Your task to perform on an android device: Play the last video I watched on Youtube Image 0: 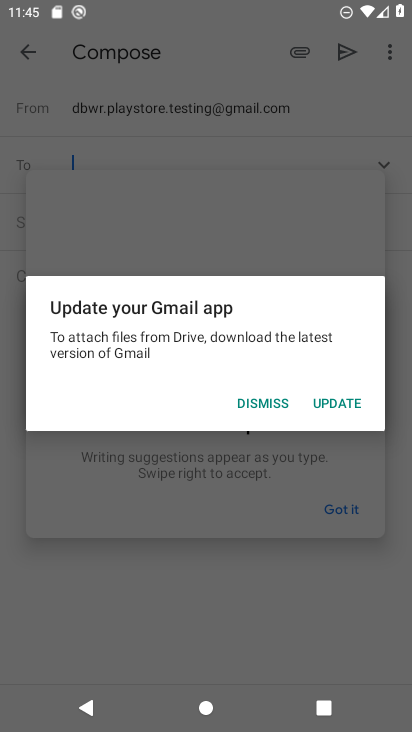
Step 0: press back button
Your task to perform on an android device: Play the last video I watched on Youtube Image 1: 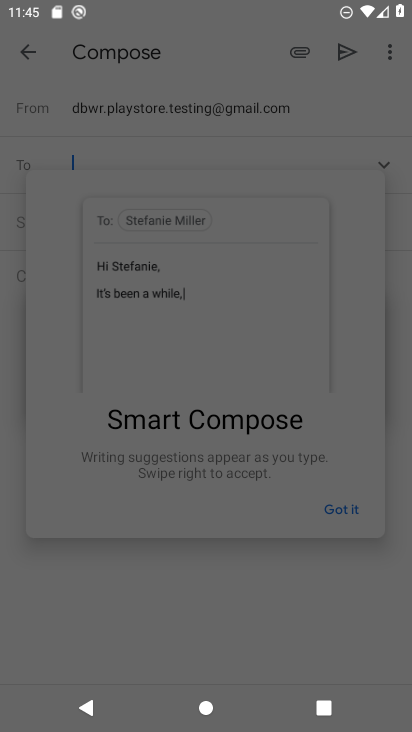
Step 1: press home button
Your task to perform on an android device: Play the last video I watched on Youtube Image 2: 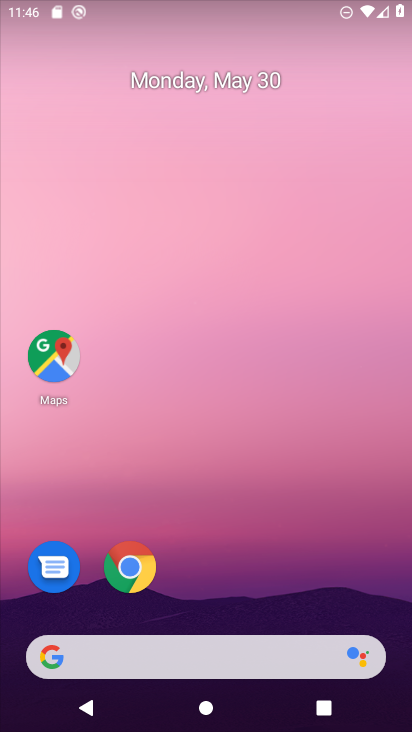
Step 2: drag from (305, 539) to (0, 506)
Your task to perform on an android device: Play the last video I watched on Youtube Image 3: 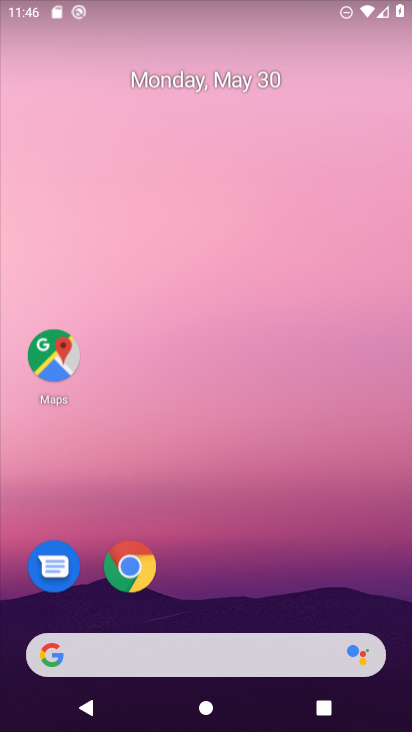
Step 3: drag from (17, 595) to (21, 0)
Your task to perform on an android device: Play the last video I watched on Youtube Image 4: 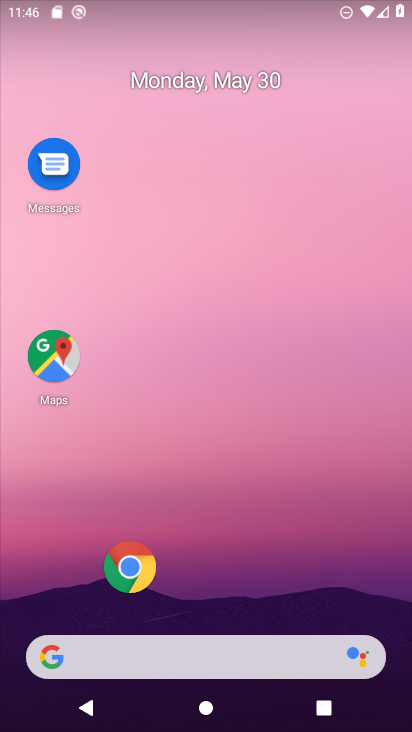
Step 4: drag from (402, 657) to (304, 54)
Your task to perform on an android device: Play the last video I watched on Youtube Image 5: 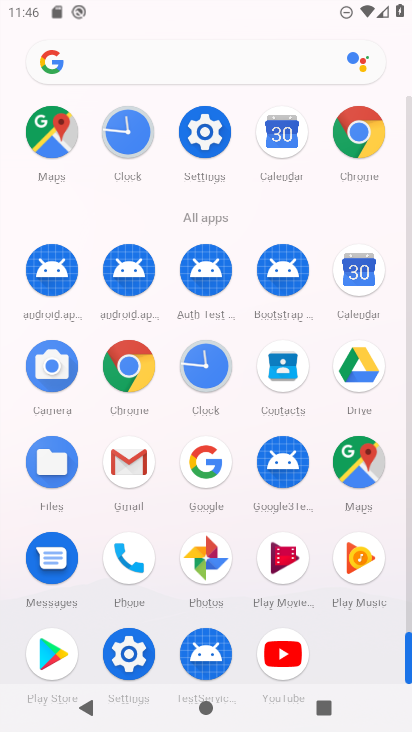
Step 5: click (284, 653)
Your task to perform on an android device: Play the last video I watched on Youtube Image 6: 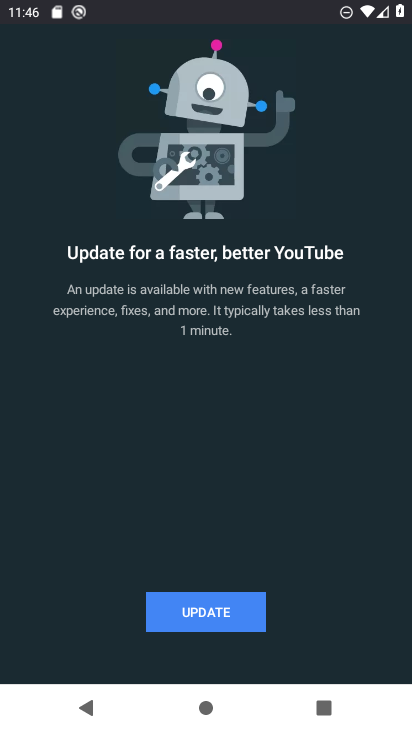
Step 6: click (195, 593)
Your task to perform on an android device: Play the last video I watched on Youtube Image 7: 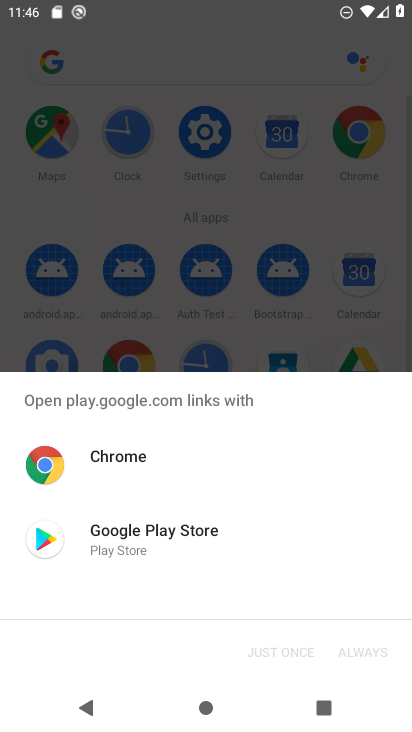
Step 7: click (184, 515)
Your task to perform on an android device: Play the last video I watched on Youtube Image 8: 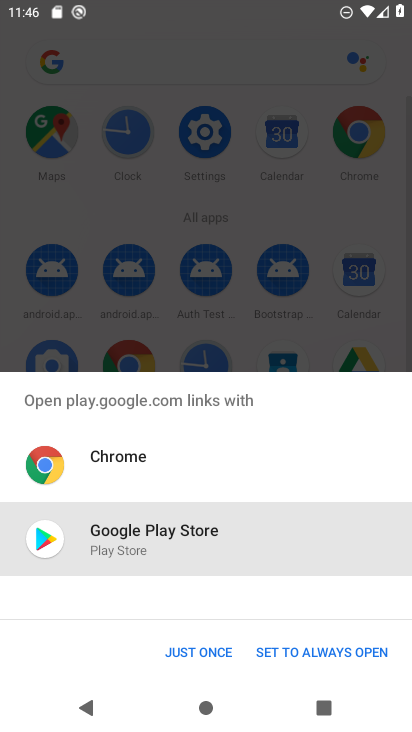
Step 8: click (195, 656)
Your task to perform on an android device: Play the last video I watched on Youtube Image 9: 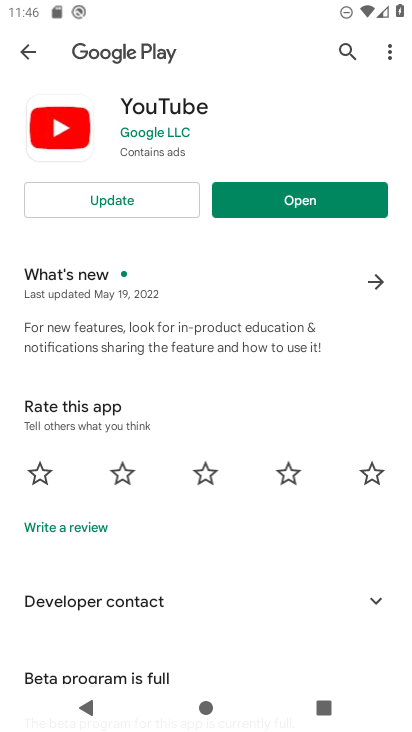
Step 9: click (136, 209)
Your task to perform on an android device: Play the last video I watched on Youtube Image 10: 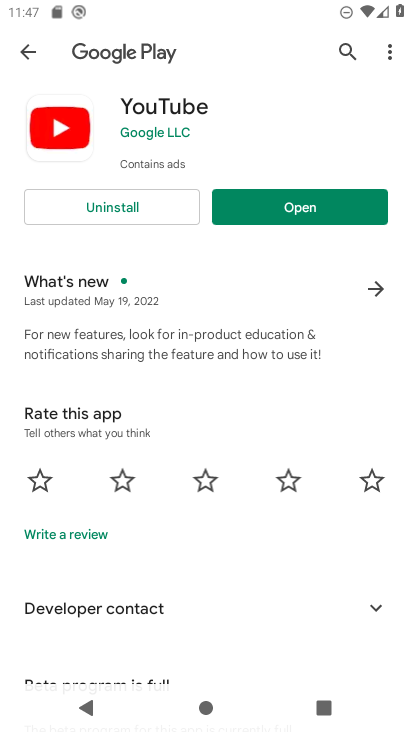
Step 10: click (313, 198)
Your task to perform on an android device: Play the last video I watched on Youtube Image 11: 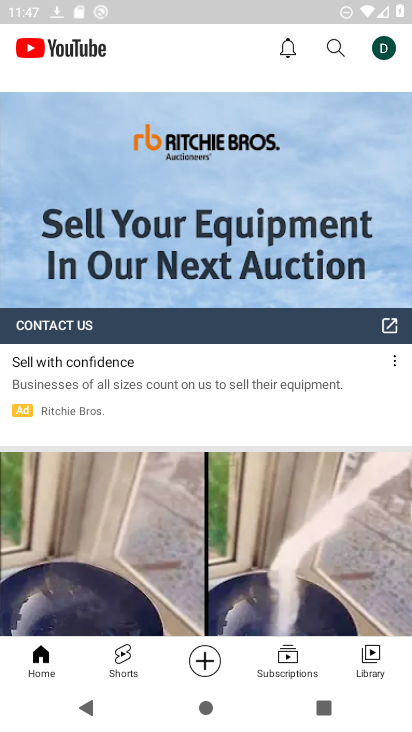
Step 11: click (364, 663)
Your task to perform on an android device: Play the last video I watched on Youtube Image 12: 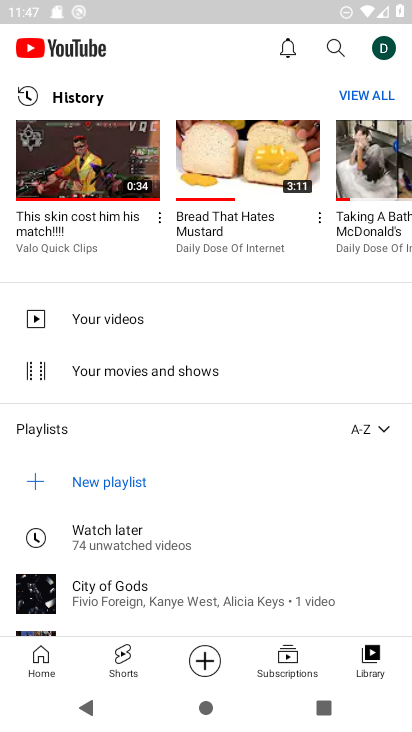
Step 12: click (57, 140)
Your task to perform on an android device: Play the last video I watched on Youtube Image 13: 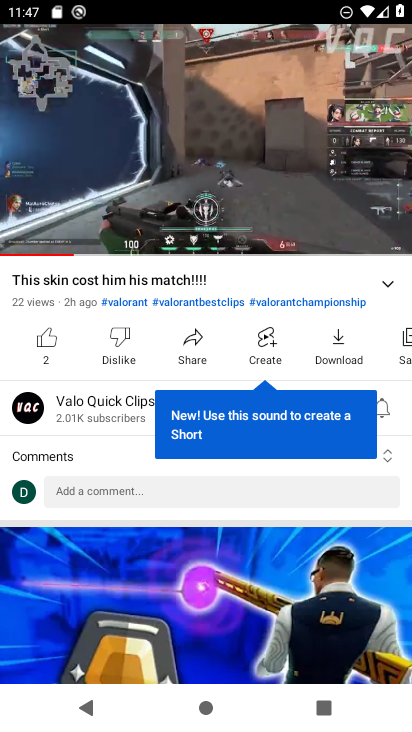
Step 13: task complete